Your task to perform on an android device: visit the assistant section in the google photos Image 0: 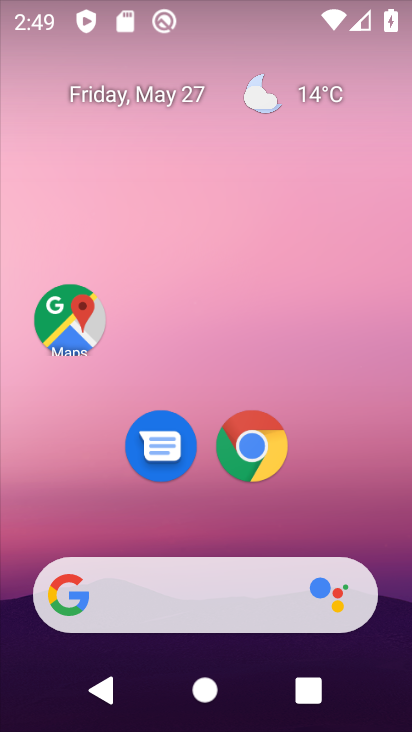
Step 0: press home button
Your task to perform on an android device: visit the assistant section in the google photos Image 1: 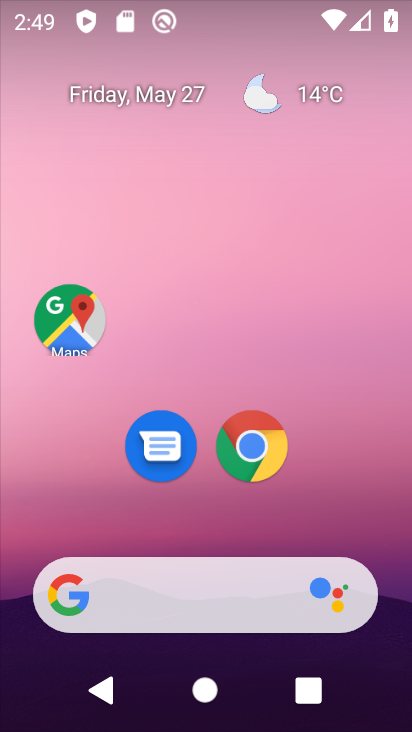
Step 1: drag from (144, 584) to (259, 122)
Your task to perform on an android device: visit the assistant section in the google photos Image 2: 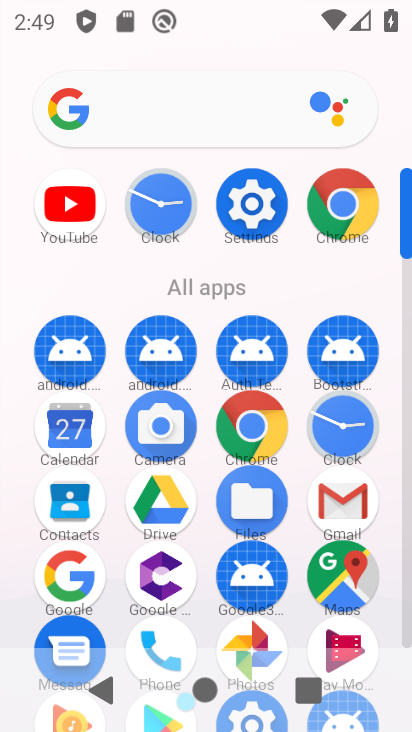
Step 2: drag from (194, 616) to (269, 204)
Your task to perform on an android device: visit the assistant section in the google photos Image 3: 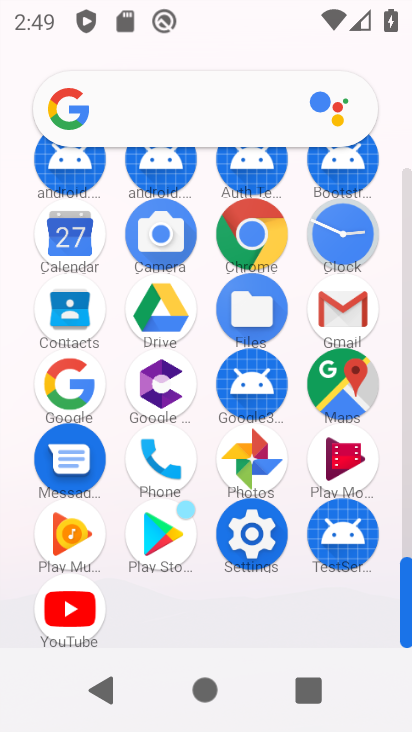
Step 3: click (252, 462)
Your task to perform on an android device: visit the assistant section in the google photos Image 4: 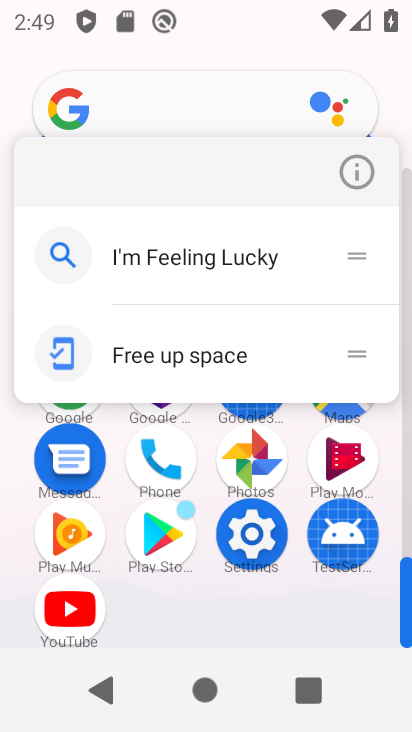
Step 4: click (256, 452)
Your task to perform on an android device: visit the assistant section in the google photos Image 5: 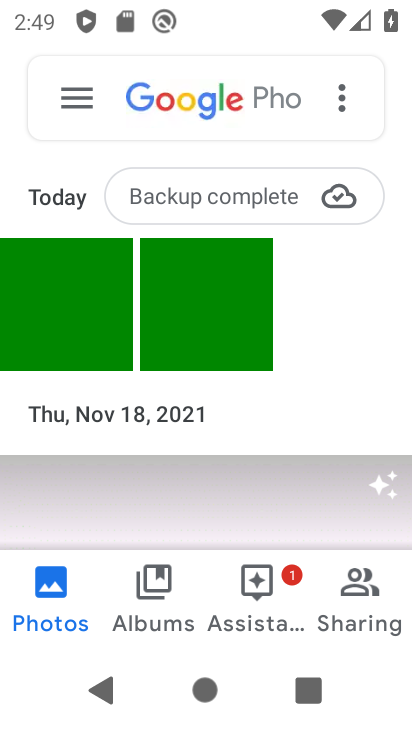
Step 5: click (260, 585)
Your task to perform on an android device: visit the assistant section in the google photos Image 6: 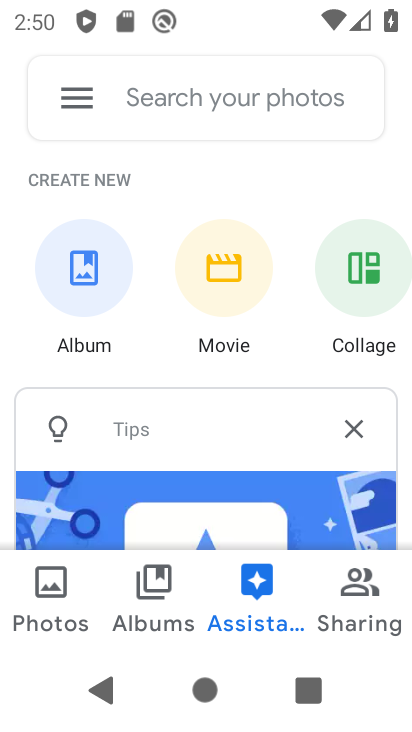
Step 6: task complete